Your task to perform on an android device: check the backup settings in the google photos Image 0: 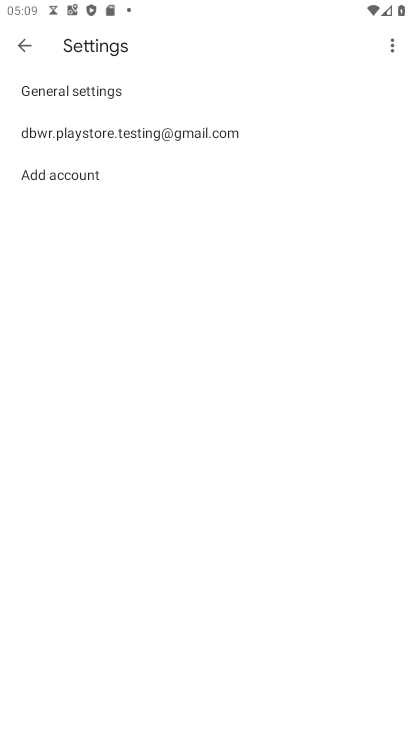
Step 0: press home button
Your task to perform on an android device: check the backup settings in the google photos Image 1: 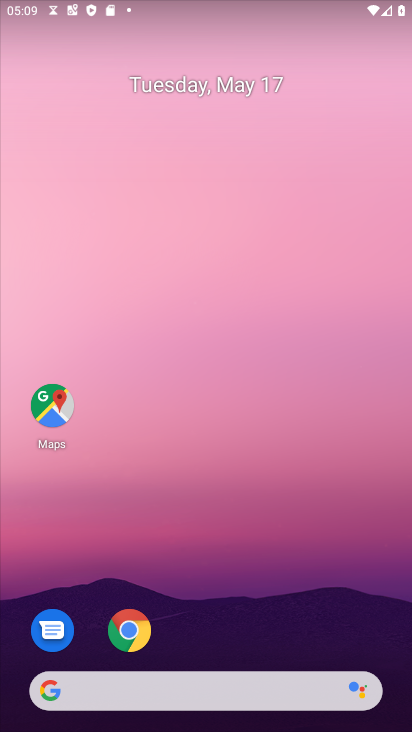
Step 1: drag from (291, 590) to (257, 60)
Your task to perform on an android device: check the backup settings in the google photos Image 2: 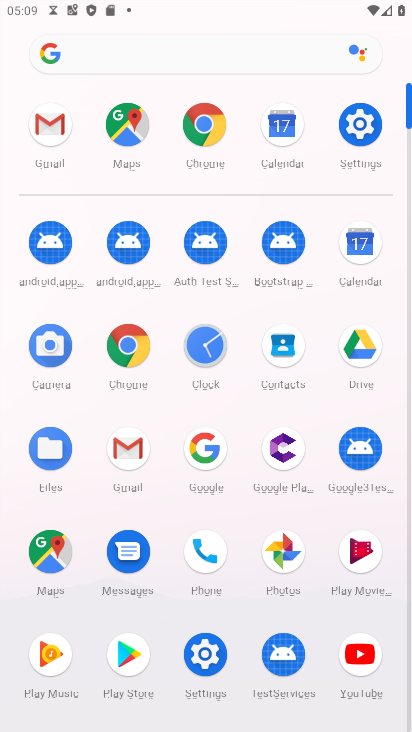
Step 2: click (271, 551)
Your task to perform on an android device: check the backup settings in the google photos Image 3: 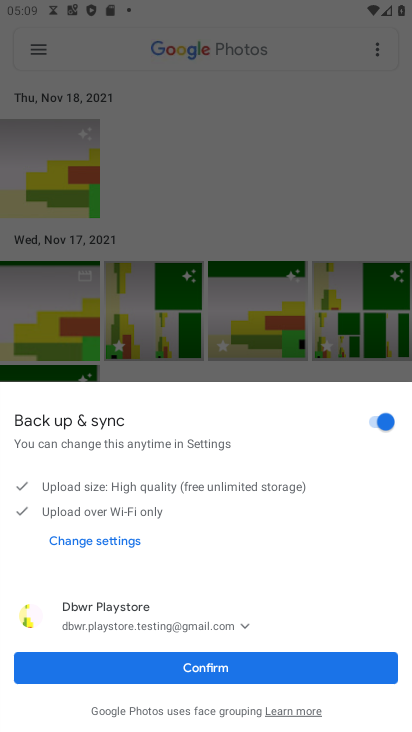
Step 3: click (328, 673)
Your task to perform on an android device: check the backup settings in the google photos Image 4: 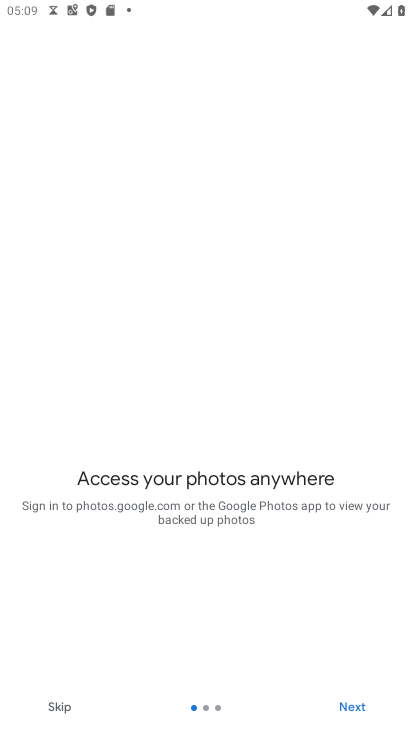
Step 4: click (356, 710)
Your task to perform on an android device: check the backup settings in the google photos Image 5: 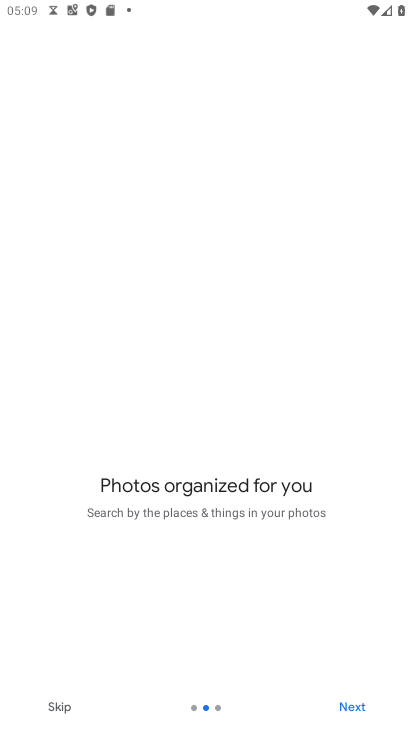
Step 5: click (357, 708)
Your task to perform on an android device: check the backup settings in the google photos Image 6: 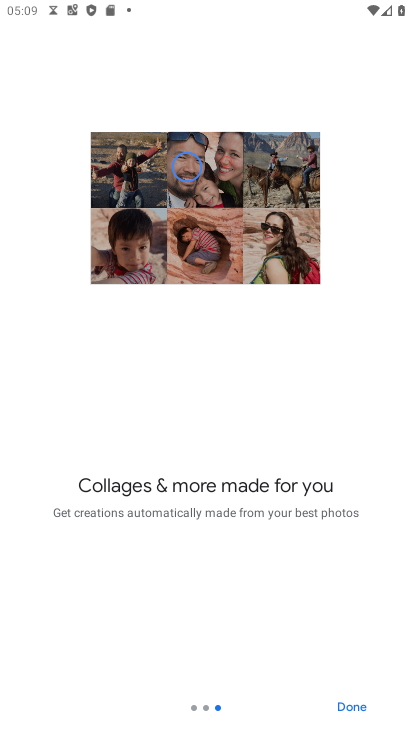
Step 6: click (357, 708)
Your task to perform on an android device: check the backup settings in the google photos Image 7: 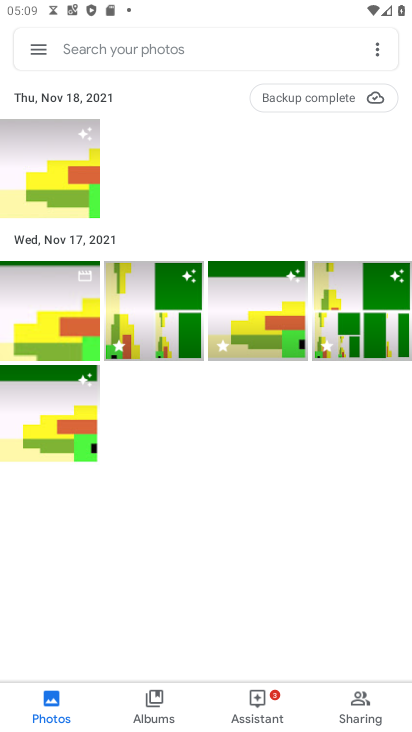
Step 7: click (37, 50)
Your task to perform on an android device: check the backup settings in the google photos Image 8: 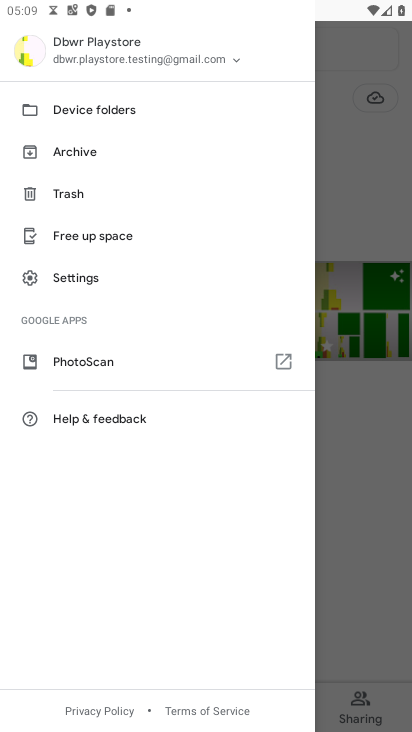
Step 8: click (66, 274)
Your task to perform on an android device: check the backup settings in the google photos Image 9: 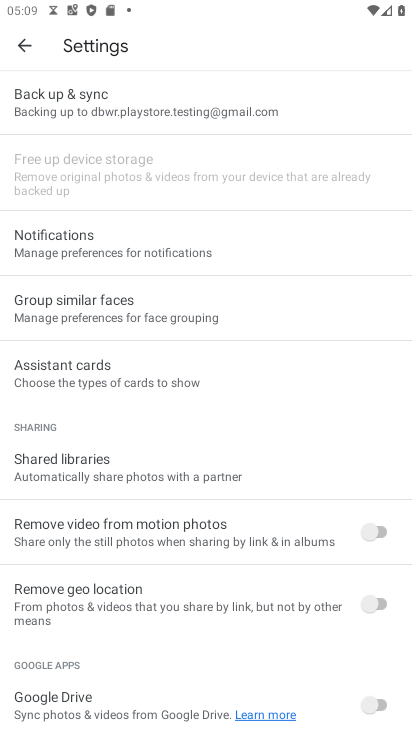
Step 9: click (55, 92)
Your task to perform on an android device: check the backup settings in the google photos Image 10: 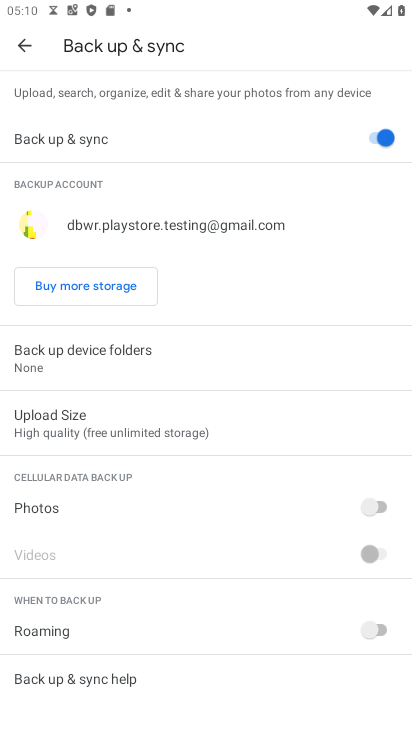
Step 10: task complete